Your task to perform on an android device: add a contact Image 0: 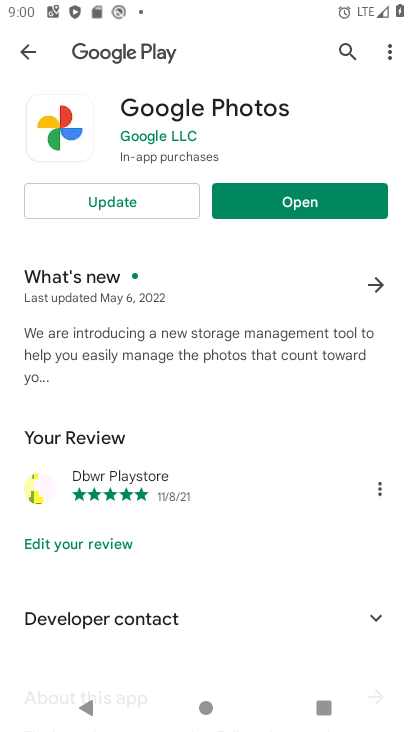
Step 0: press home button
Your task to perform on an android device: add a contact Image 1: 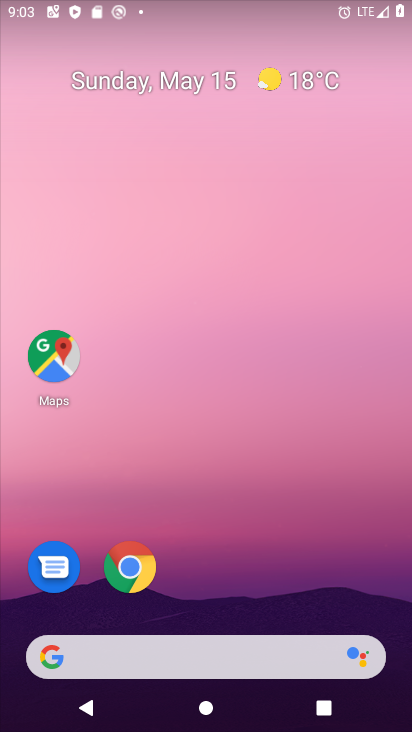
Step 1: drag from (237, 712) to (320, 12)
Your task to perform on an android device: add a contact Image 2: 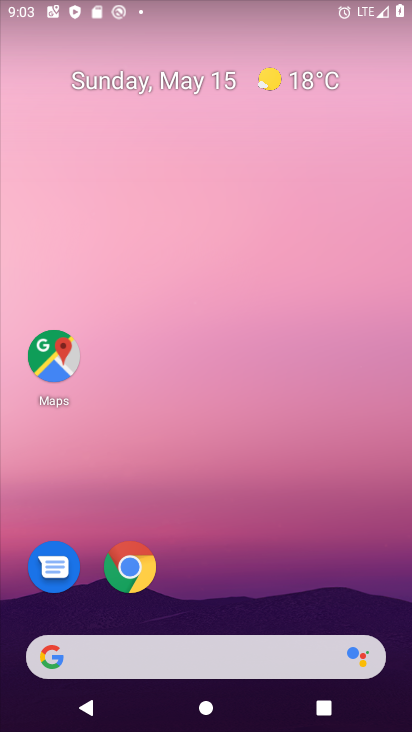
Step 2: drag from (261, 699) to (299, 15)
Your task to perform on an android device: add a contact Image 3: 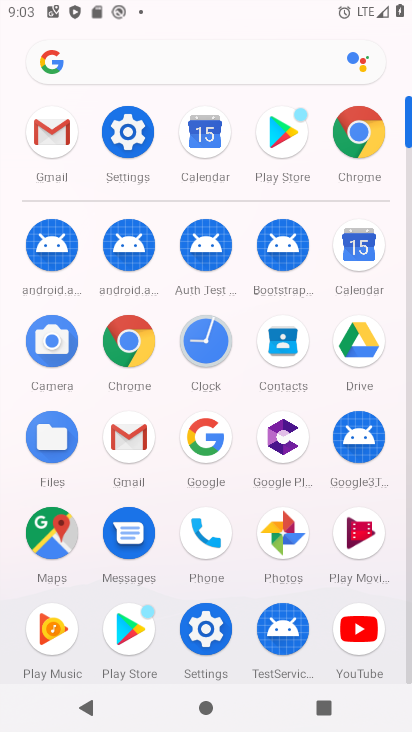
Step 3: click (286, 336)
Your task to perform on an android device: add a contact Image 4: 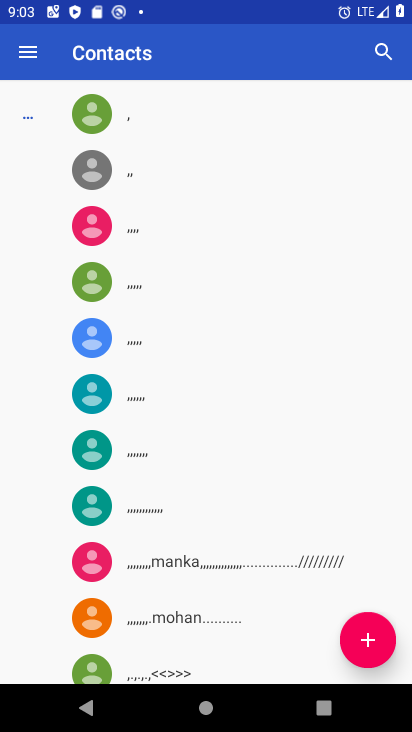
Step 4: click (394, 638)
Your task to perform on an android device: add a contact Image 5: 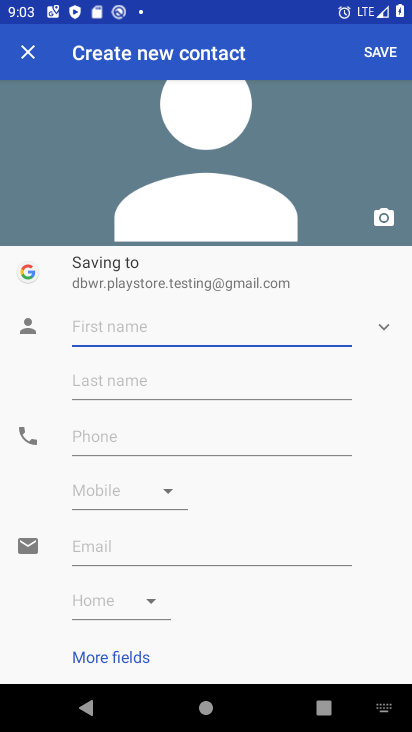
Step 5: type "jygj"
Your task to perform on an android device: add a contact Image 6: 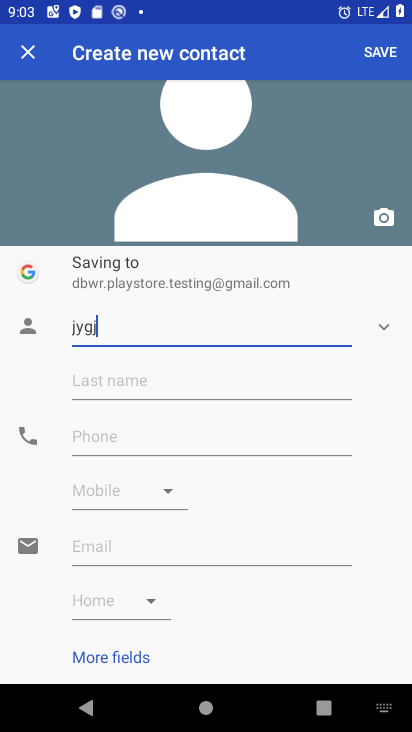
Step 6: click (134, 431)
Your task to perform on an android device: add a contact Image 7: 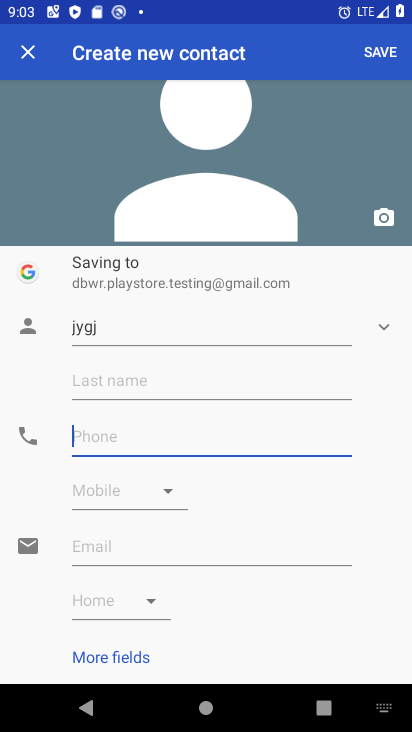
Step 7: type "9869"
Your task to perform on an android device: add a contact Image 8: 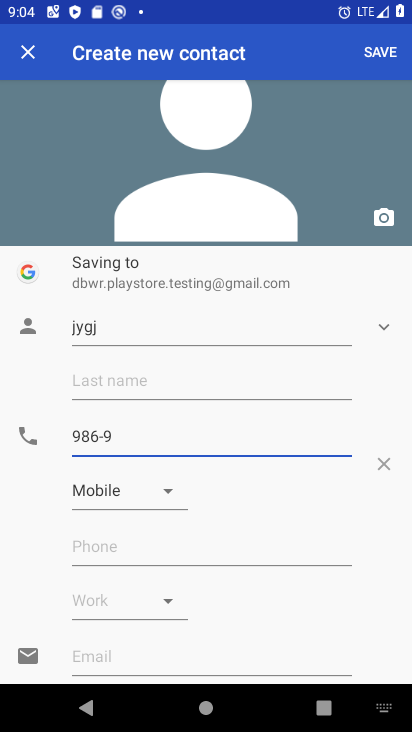
Step 8: click (392, 54)
Your task to perform on an android device: add a contact Image 9: 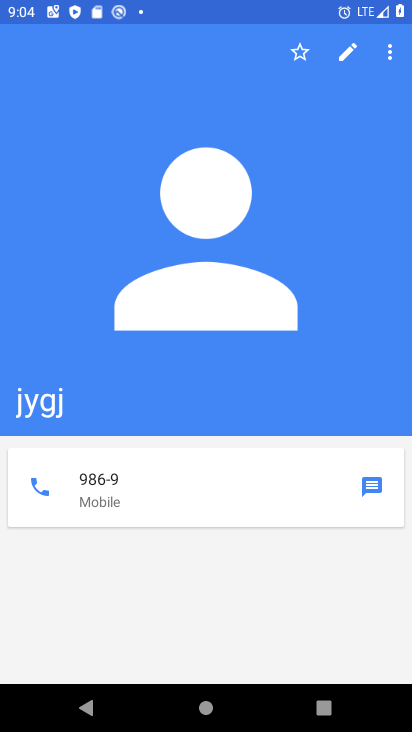
Step 9: task complete